Your task to perform on an android device: Open calendar and show me the first week of next month Image 0: 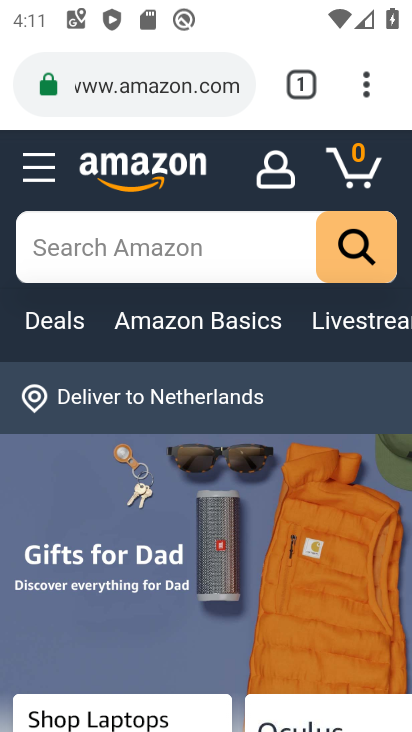
Step 0: press home button
Your task to perform on an android device: Open calendar and show me the first week of next month Image 1: 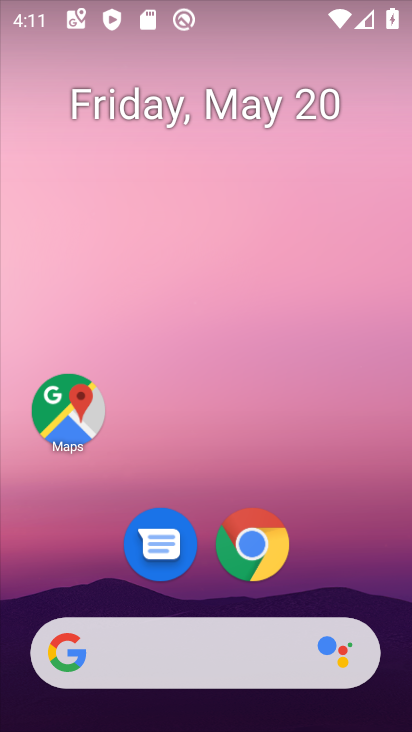
Step 1: drag from (343, 600) to (321, 9)
Your task to perform on an android device: Open calendar and show me the first week of next month Image 2: 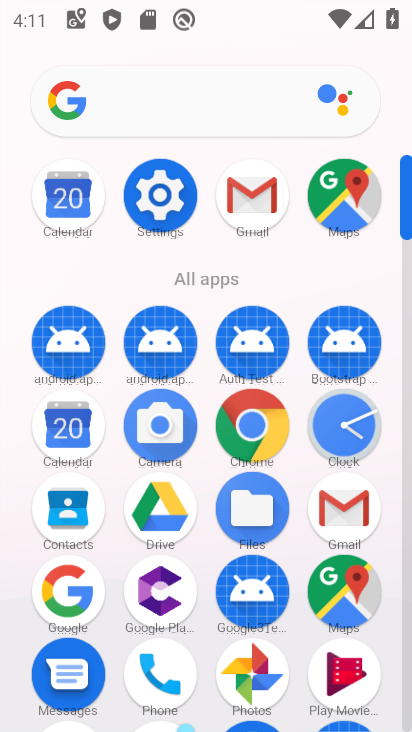
Step 2: click (49, 202)
Your task to perform on an android device: Open calendar and show me the first week of next month Image 3: 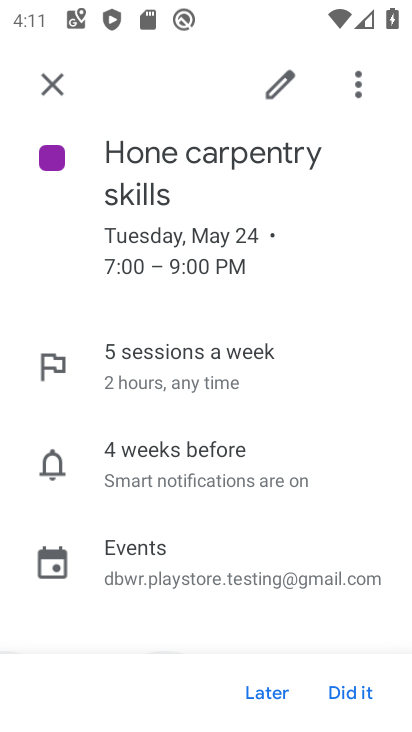
Step 3: click (47, 77)
Your task to perform on an android device: Open calendar and show me the first week of next month Image 4: 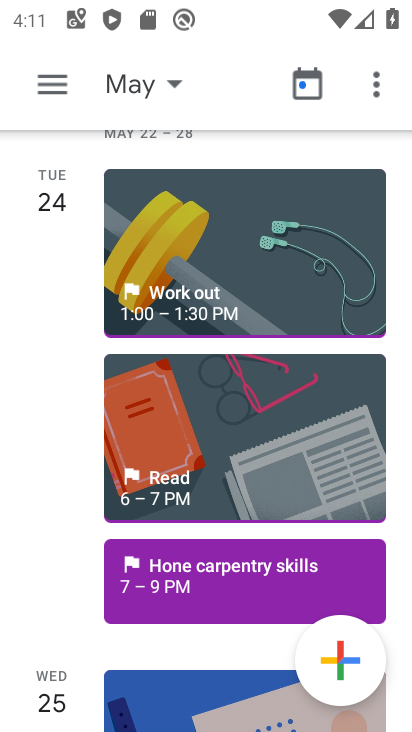
Step 4: click (174, 90)
Your task to perform on an android device: Open calendar and show me the first week of next month Image 5: 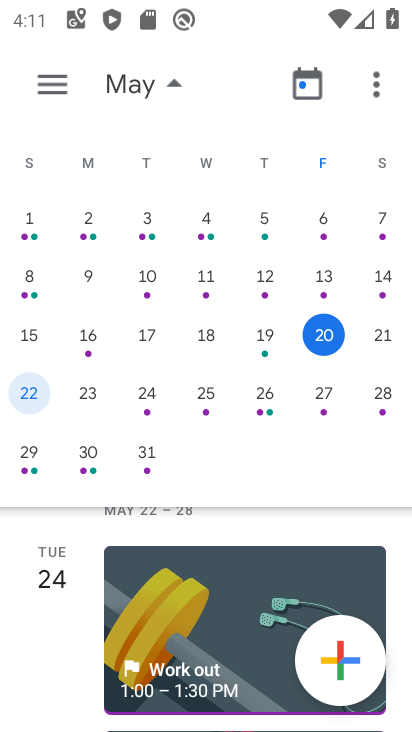
Step 5: drag from (338, 261) to (47, 172)
Your task to perform on an android device: Open calendar and show me the first week of next month Image 6: 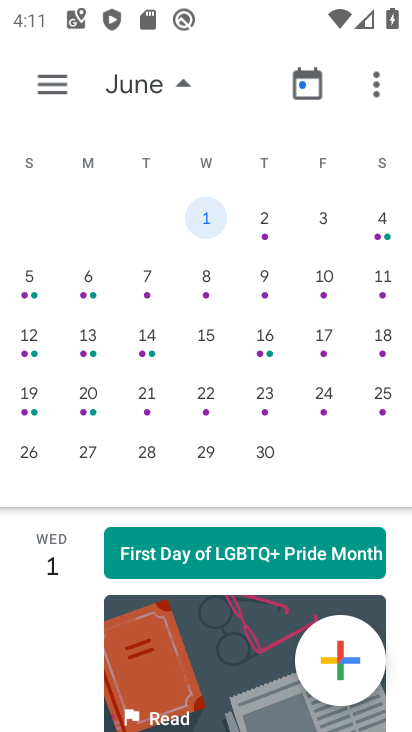
Step 6: click (59, 80)
Your task to perform on an android device: Open calendar and show me the first week of next month Image 7: 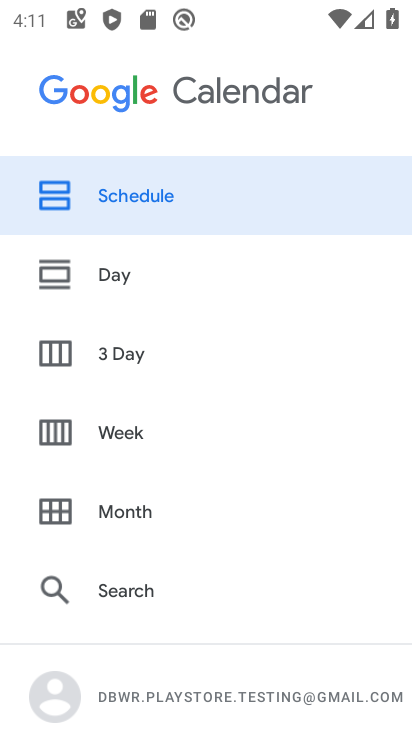
Step 7: click (114, 428)
Your task to perform on an android device: Open calendar and show me the first week of next month Image 8: 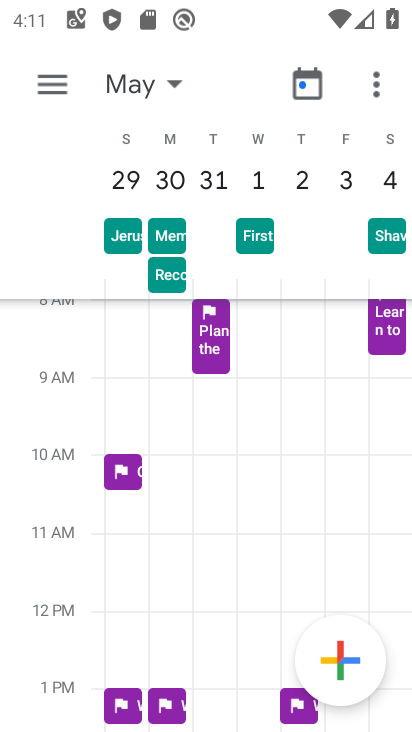
Step 8: task complete